Your task to perform on an android device: find photos in the google photos app Image 0: 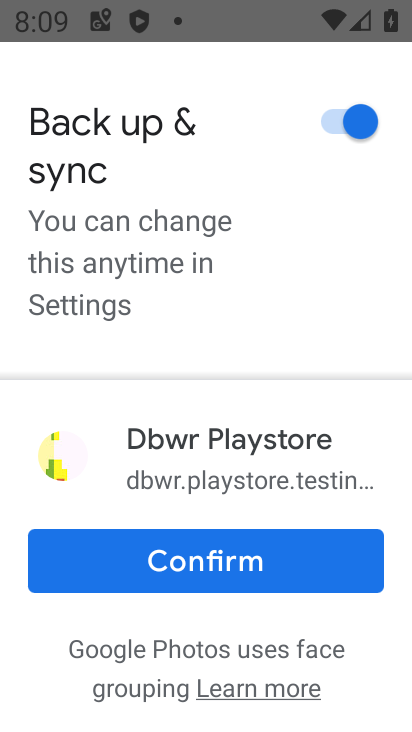
Step 0: click (274, 538)
Your task to perform on an android device: find photos in the google photos app Image 1: 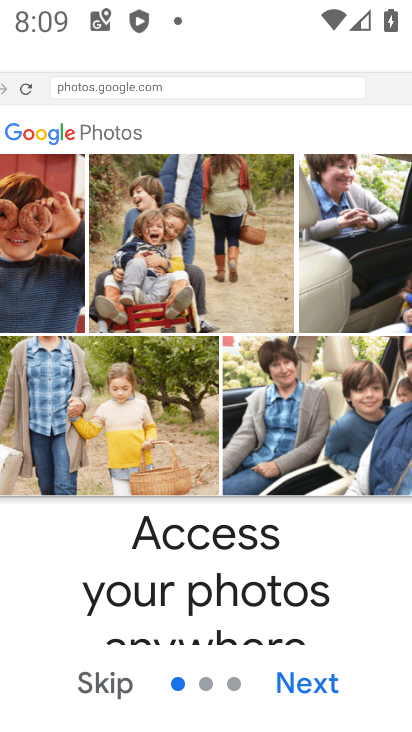
Step 1: click (303, 680)
Your task to perform on an android device: find photos in the google photos app Image 2: 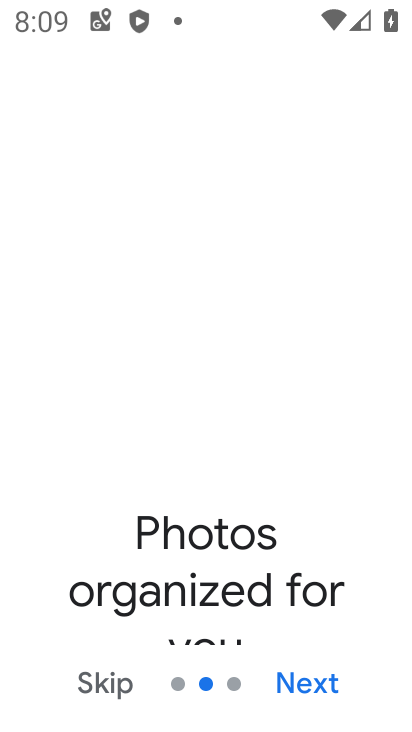
Step 2: click (303, 680)
Your task to perform on an android device: find photos in the google photos app Image 3: 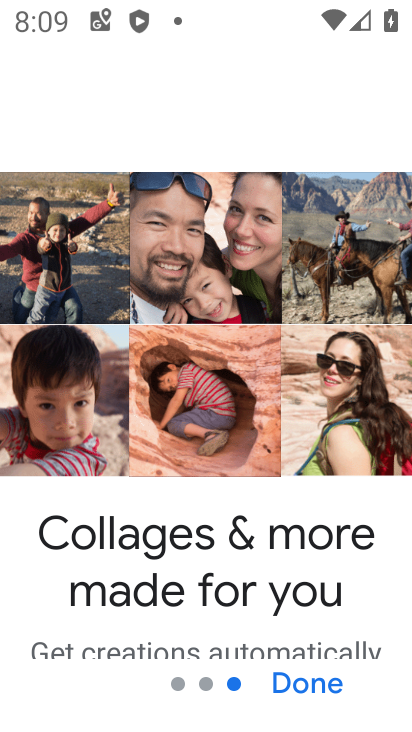
Step 3: click (303, 680)
Your task to perform on an android device: find photos in the google photos app Image 4: 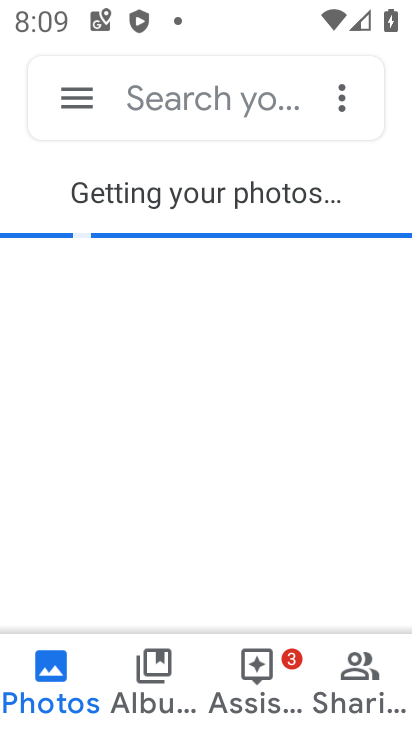
Step 4: click (41, 670)
Your task to perform on an android device: find photos in the google photos app Image 5: 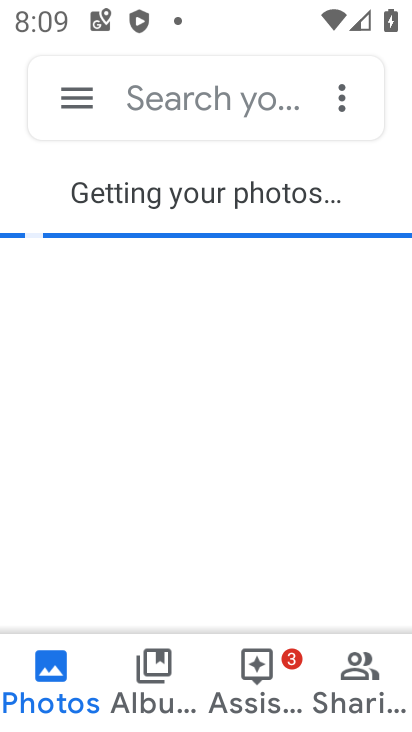
Step 5: task complete